Your task to perform on an android device: Open Google Chrome and click the shortcut for Amazon.com Image 0: 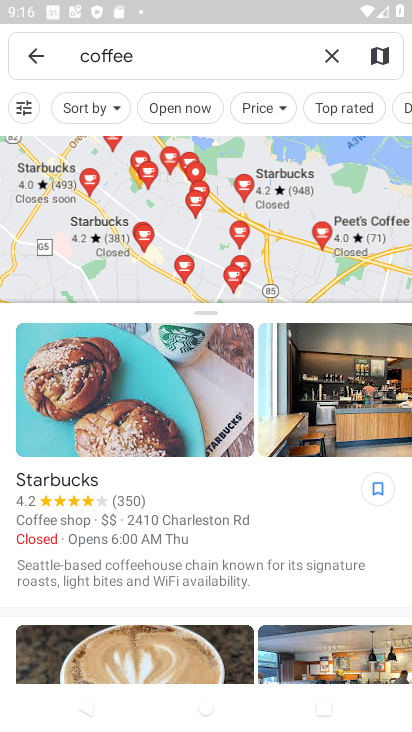
Step 0: press home button
Your task to perform on an android device: Open Google Chrome and click the shortcut for Amazon.com Image 1: 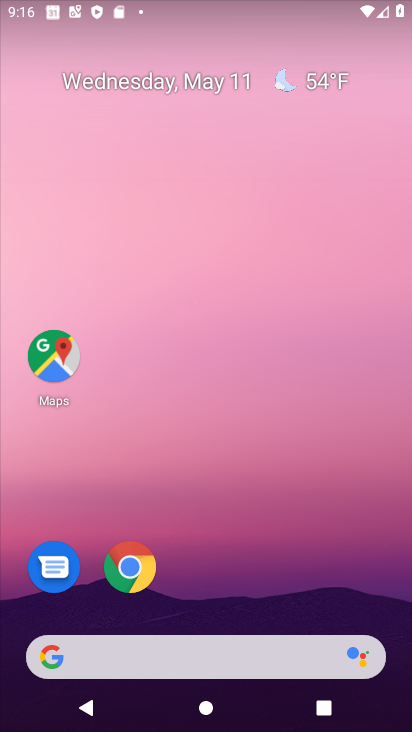
Step 1: click (142, 558)
Your task to perform on an android device: Open Google Chrome and click the shortcut for Amazon.com Image 2: 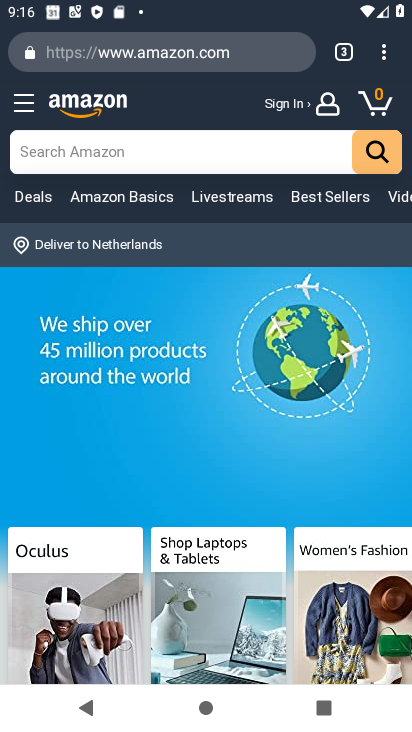
Step 2: click (382, 60)
Your task to perform on an android device: Open Google Chrome and click the shortcut for Amazon.com Image 3: 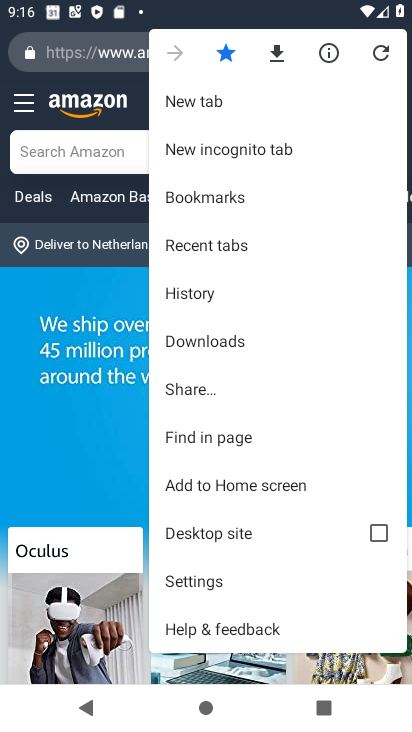
Step 3: click (219, 106)
Your task to perform on an android device: Open Google Chrome and click the shortcut for Amazon.com Image 4: 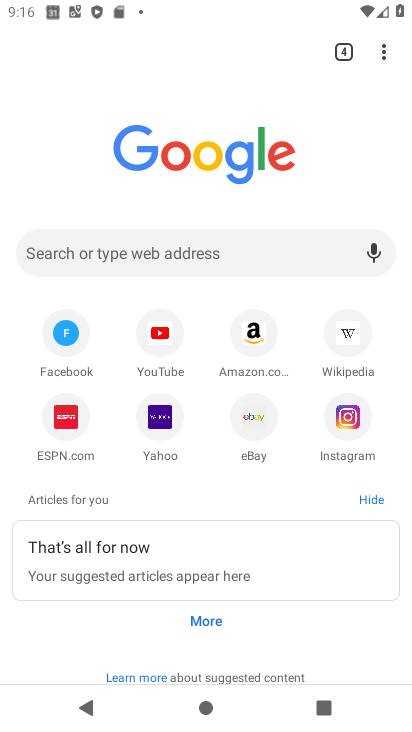
Step 4: click (262, 328)
Your task to perform on an android device: Open Google Chrome and click the shortcut for Amazon.com Image 5: 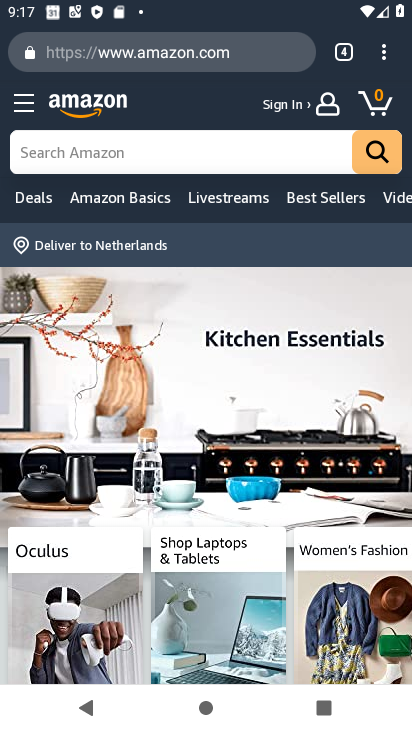
Step 5: task complete